Your task to perform on an android device: Go to internet settings Image 0: 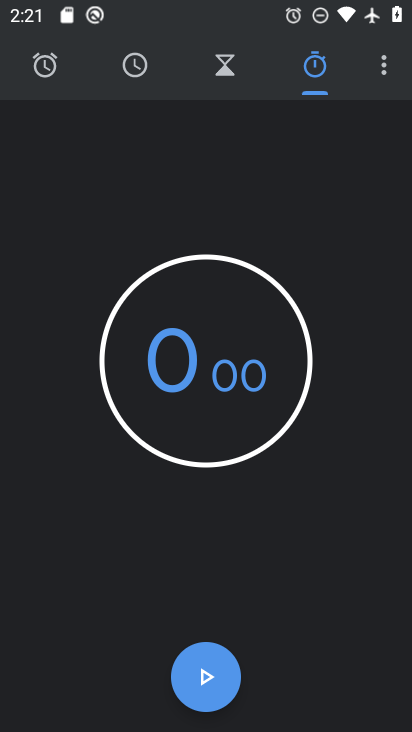
Step 0: press home button
Your task to perform on an android device: Go to internet settings Image 1: 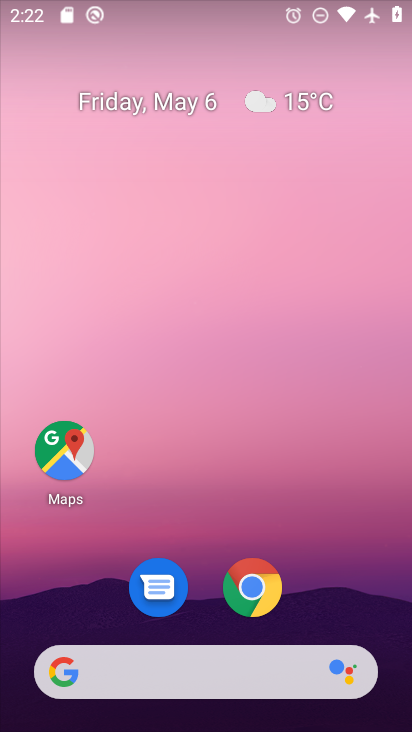
Step 1: drag from (311, 427) to (223, 4)
Your task to perform on an android device: Go to internet settings Image 2: 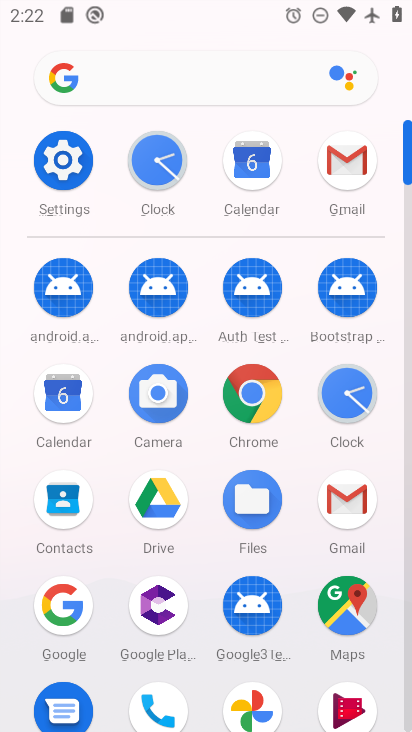
Step 2: click (59, 152)
Your task to perform on an android device: Go to internet settings Image 3: 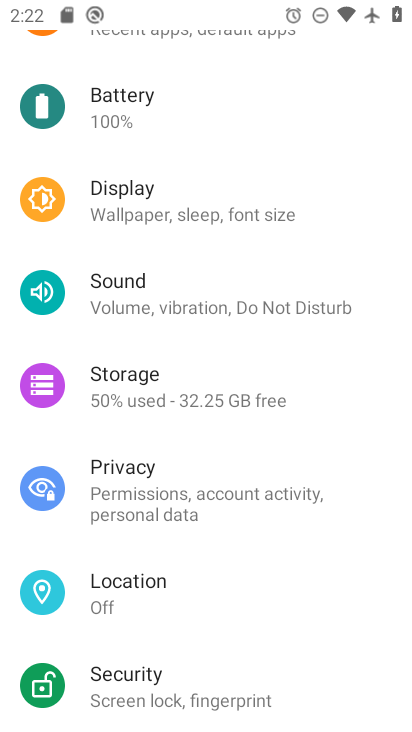
Step 3: drag from (227, 342) to (214, 728)
Your task to perform on an android device: Go to internet settings Image 4: 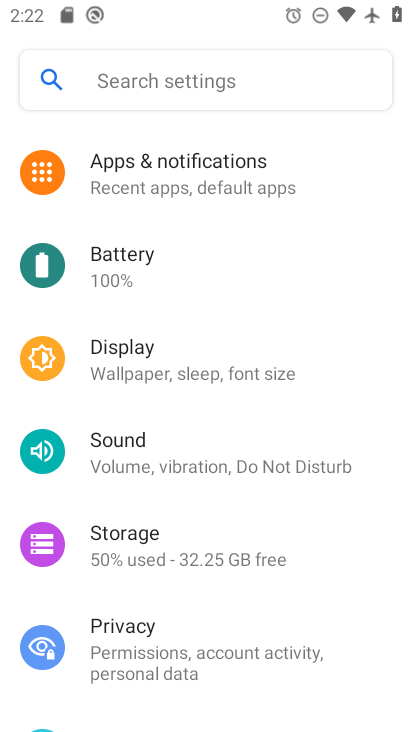
Step 4: click (185, 180)
Your task to perform on an android device: Go to internet settings Image 5: 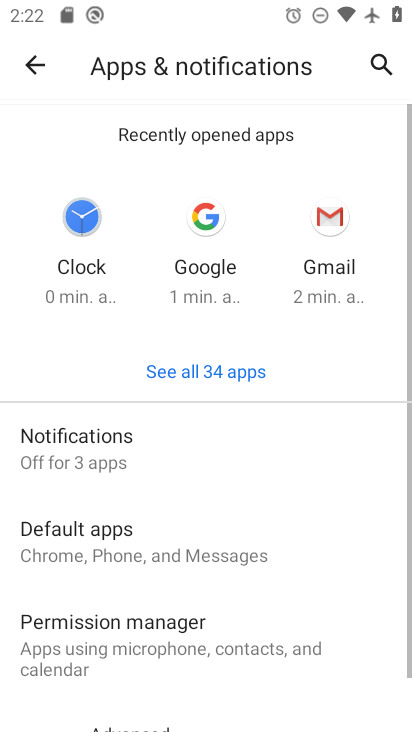
Step 5: press back button
Your task to perform on an android device: Go to internet settings Image 6: 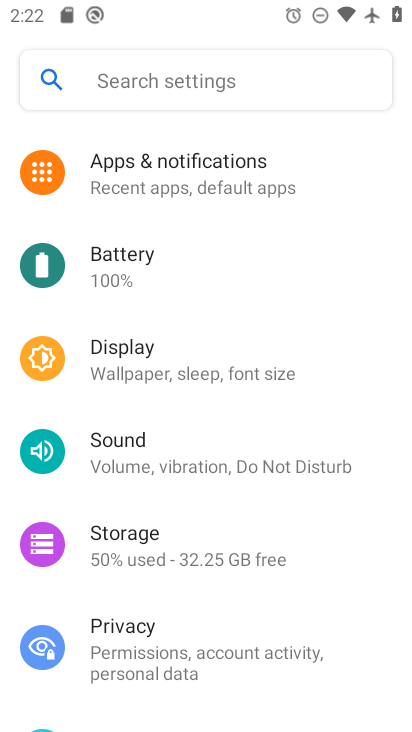
Step 6: drag from (220, 251) to (191, 608)
Your task to perform on an android device: Go to internet settings Image 7: 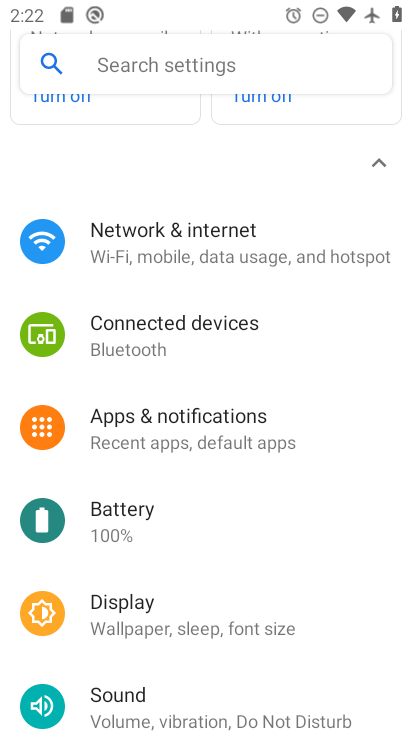
Step 7: drag from (214, 316) to (224, 592)
Your task to perform on an android device: Go to internet settings Image 8: 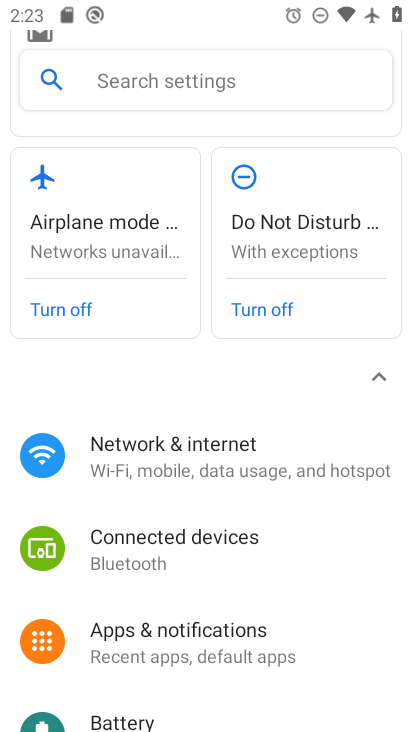
Step 8: click (186, 452)
Your task to perform on an android device: Go to internet settings Image 9: 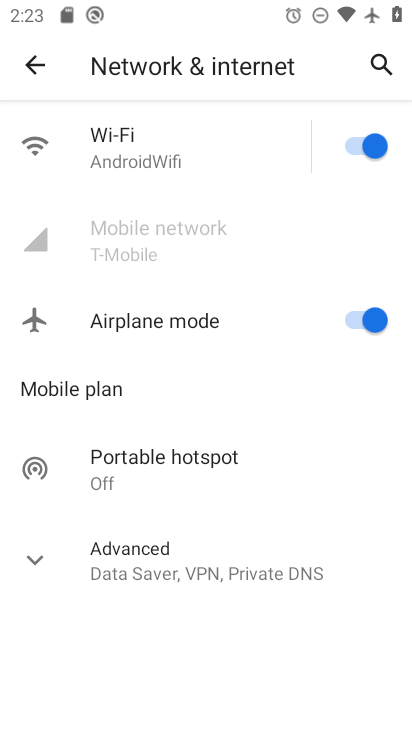
Step 9: task complete